Your task to perform on an android device: Open sound settings Image 0: 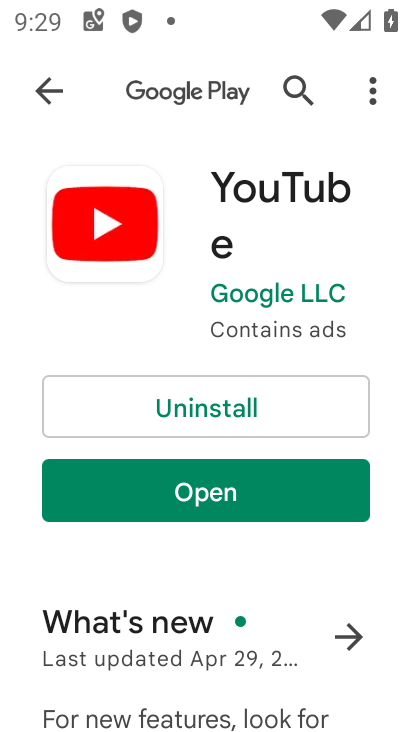
Step 0: press home button
Your task to perform on an android device: Open sound settings Image 1: 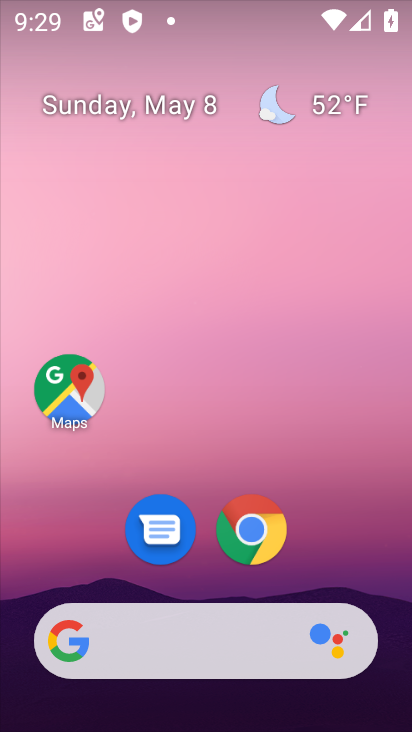
Step 1: drag from (334, 561) to (361, 49)
Your task to perform on an android device: Open sound settings Image 2: 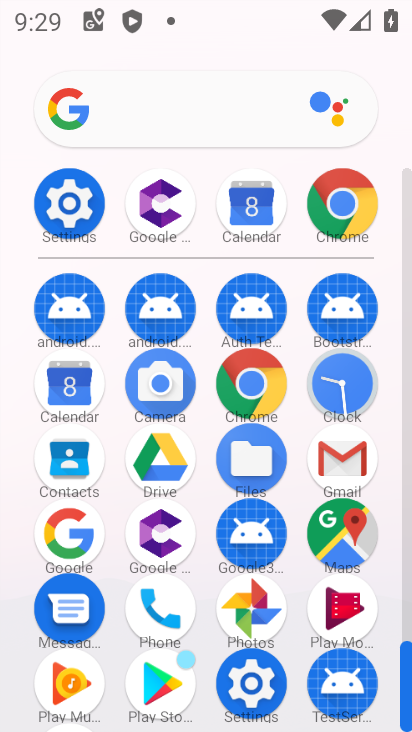
Step 2: click (75, 219)
Your task to perform on an android device: Open sound settings Image 3: 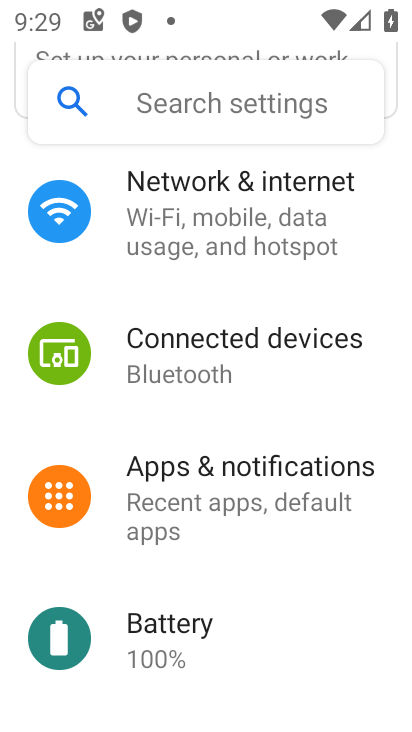
Step 3: drag from (254, 616) to (267, 284)
Your task to perform on an android device: Open sound settings Image 4: 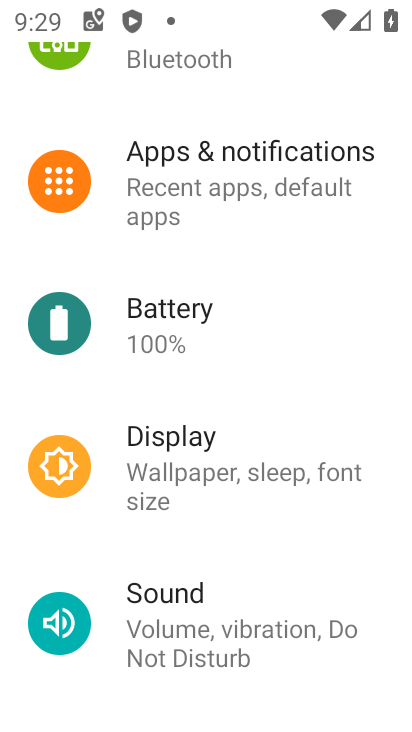
Step 4: click (224, 616)
Your task to perform on an android device: Open sound settings Image 5: 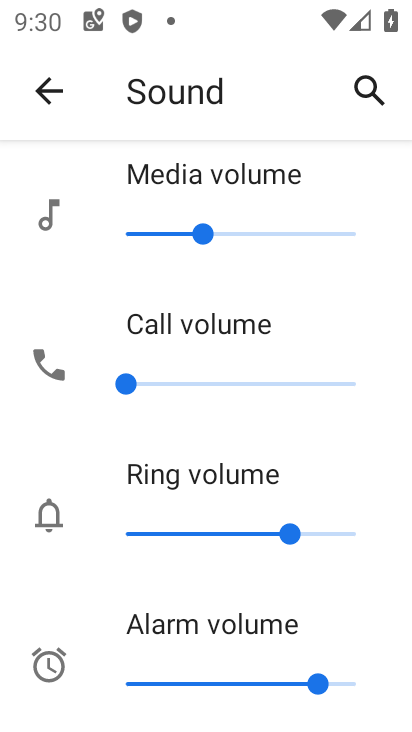
Step 5: task complete